Your task to perform on an android device: check battery use Image 0: 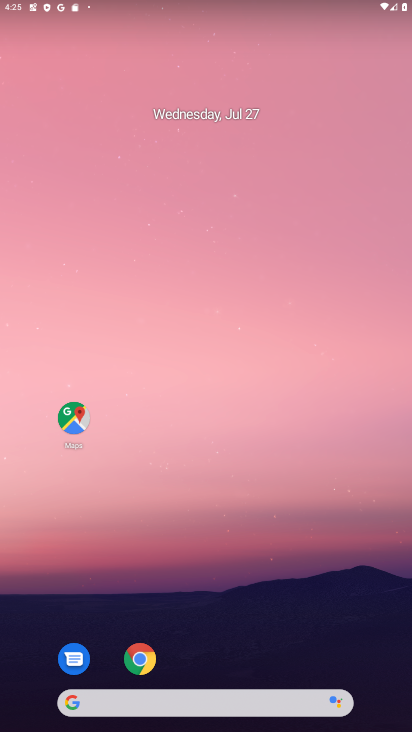
Step 0: drag from (380, 651) to (295, 140)
Your task to perform on an android device: check battery use Image 1: 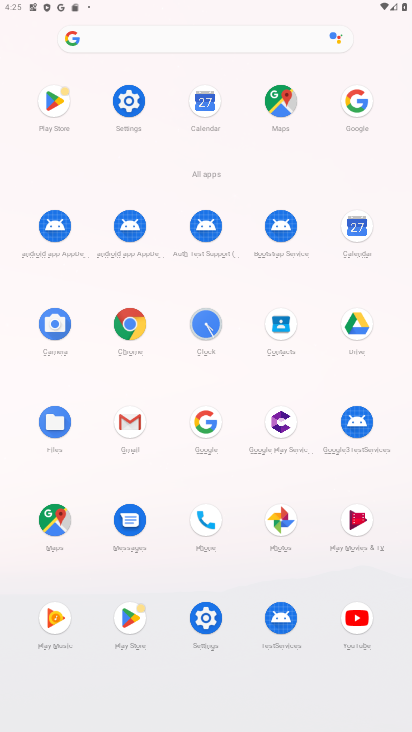
Step 1: click (126, 98)
Your task to perform on an android device: check battery use Image 2: 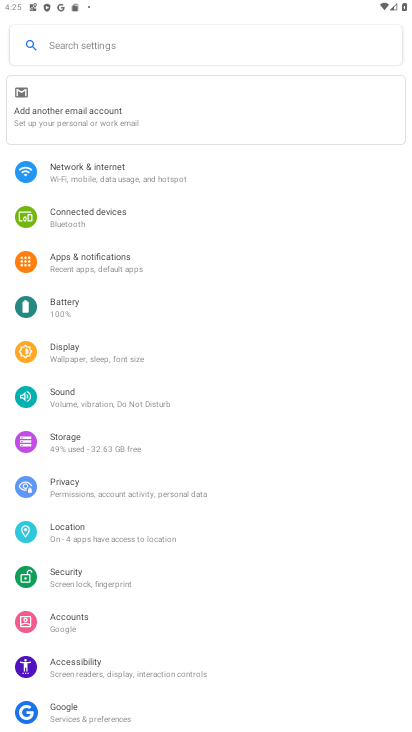
Step 2: click (124, 312)
Your task to perform on an android device: check battery use Image 3: 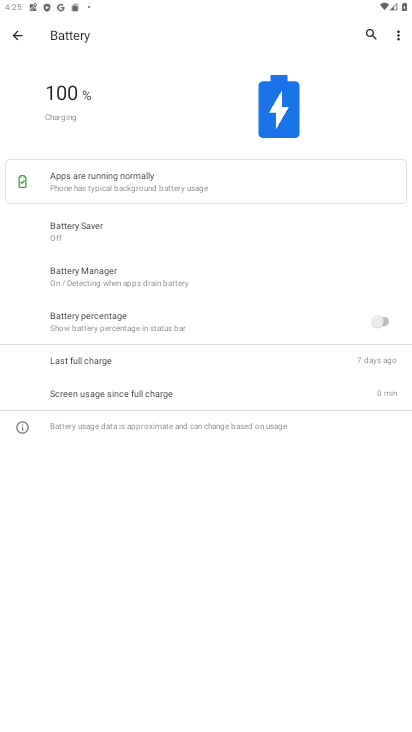
Step 3: click (401, 32)
Your task to perform on an android device: check battery use Image 4: 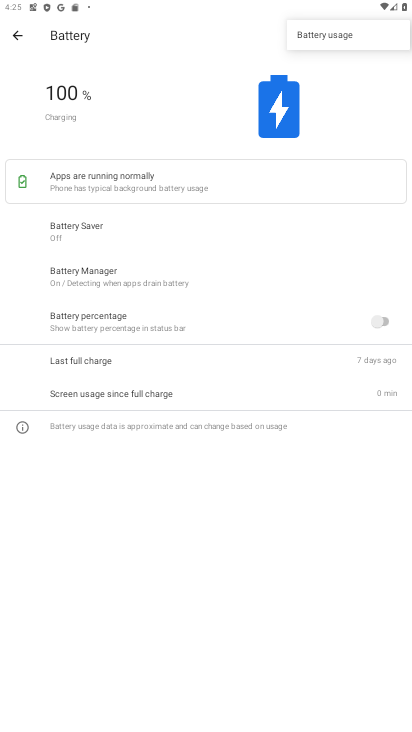
Step 4: click (329, 37)
Your task to perform on an android device: check battery use Image 5: 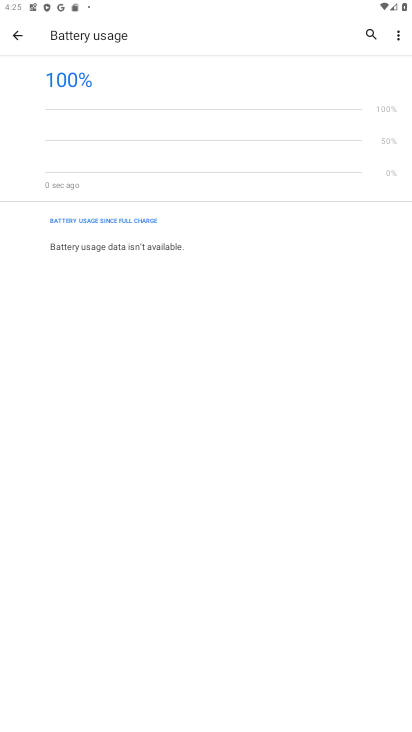
Step 5: task complete